Your task to perform on an android device: Find coffee shops on Maps Image 0: 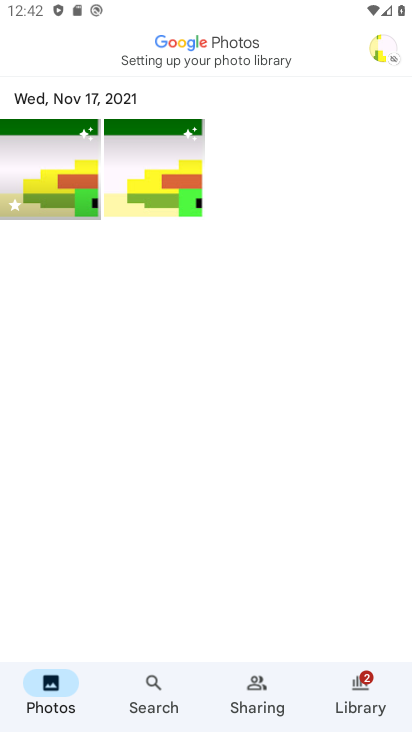
Step 0: press home button
Your task to perform on an android device: Find coffee shops on Maps Image 1: 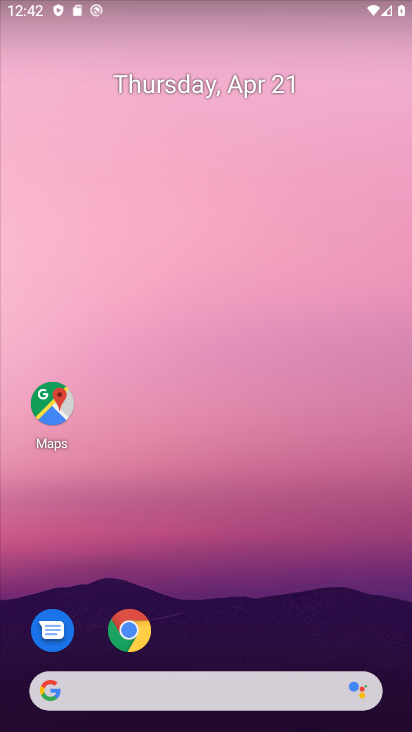
Step 1: click (48, 392)
Your task to perform on an android device: Find coffee shops on Maps Image 2: 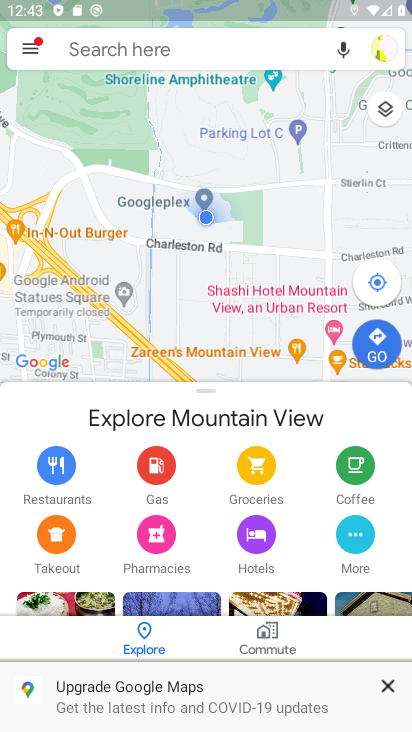
Step 2: click (113, 51)
Your task to perform on an android device: Find coffee shops on Maps Image 3: 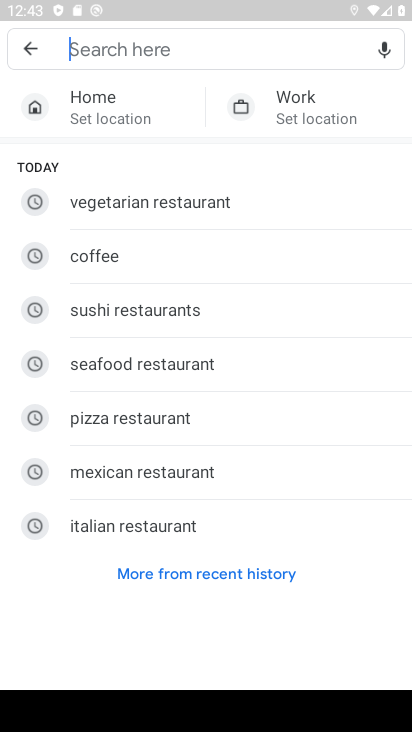
Step 3: click (167, 257)
Your task to perform on an android device: Find coffee shops on Maps Image 4: 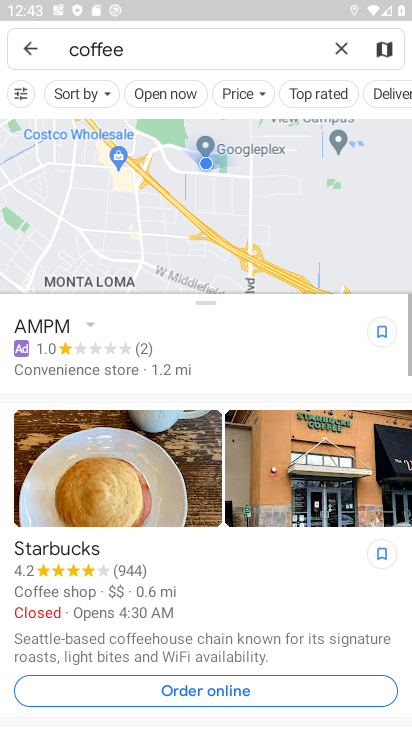
Step 4: task complete